Your task to perform on an android device: Search for sushi restaurants on Maps Image 0: 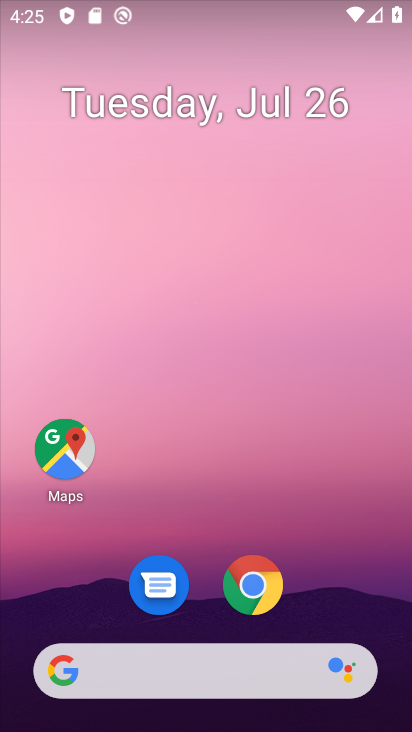
Step 0: click (66, 443)
Your task to perform on an android device: Search for sushi restaurants on Maps Image 1: 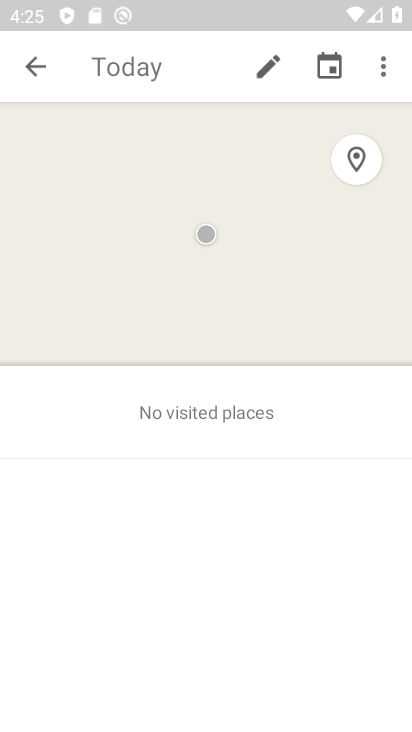
Step 1: click (42, 62)
Your task to perform on an android device: Search for sushi restaurants on Maps Image 2: 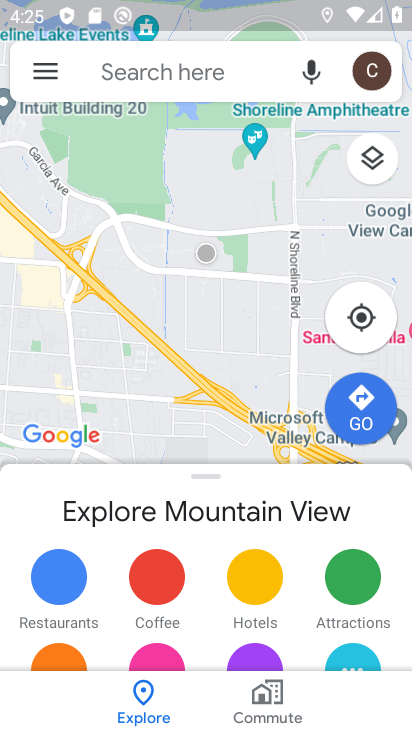
Step 2: click (125, 72)
Your task to perform on an android device: Search for sushi restaurants on Maps Image 3: 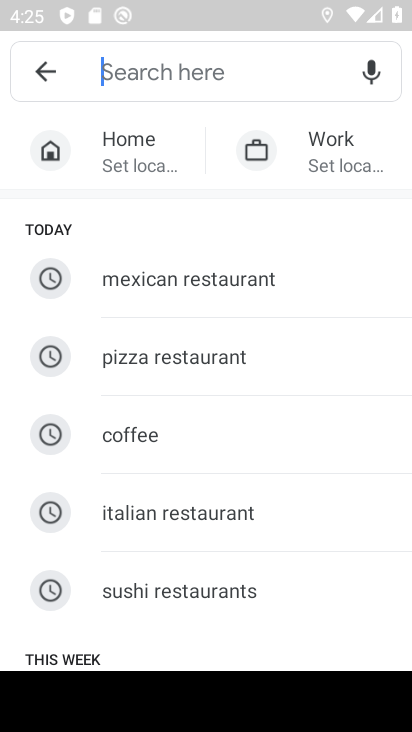
Step 3: click (50, 67)
Your task to perform on an android device: Search for sushi restaurants on Maps Image 4: 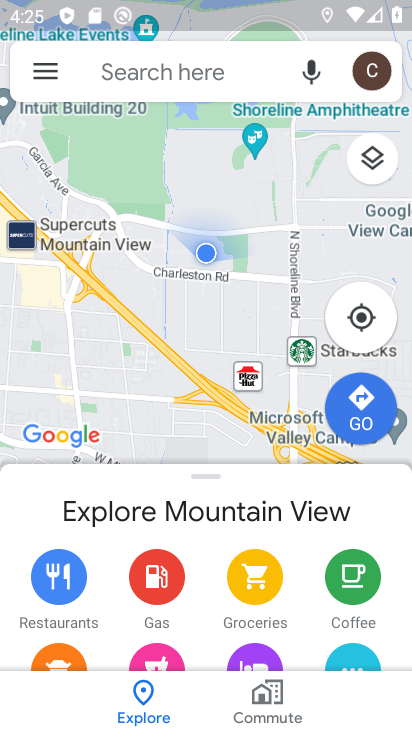
Step 4: click (165, 71)
Your task to perform on an android device: Search for sushi restaurants on Maps Image 5: 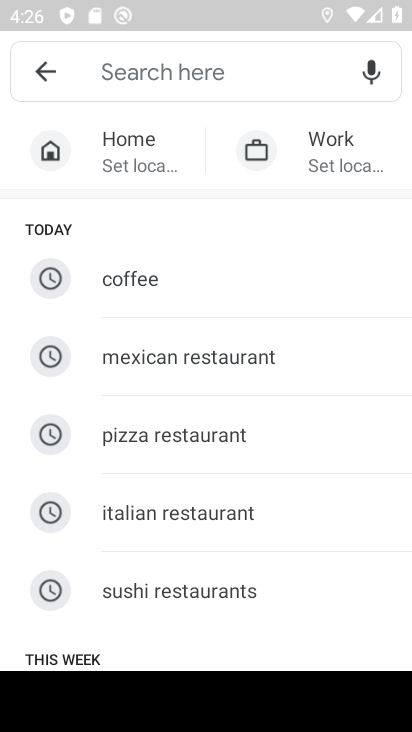
Step 5: click (237, 589)
Your task to perform on an android device: Search for sushi restaurants on Maps Image 6: 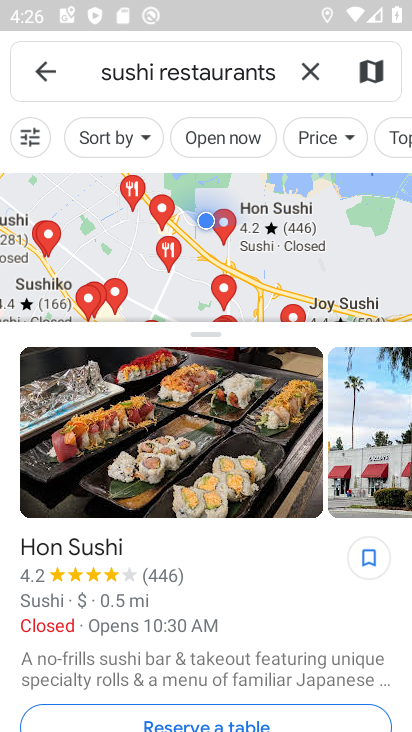
Step 6: task complete